Your task to perform on an android device: turn off data saver in the chrome app Image 0: 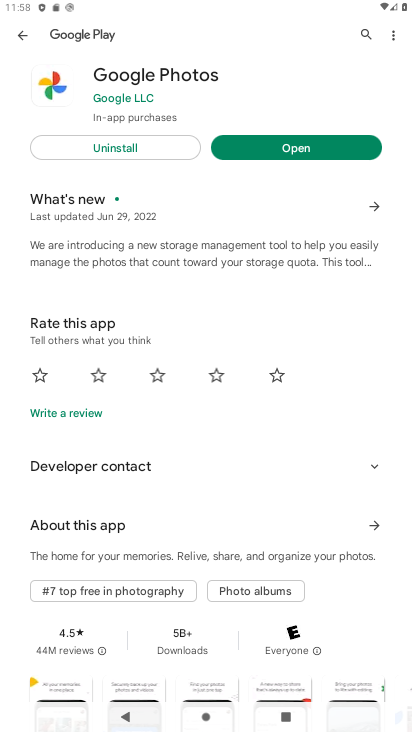
Step 0: press home button
Your task to perform on an android device: turn off data saver in the chrome app Image 1: 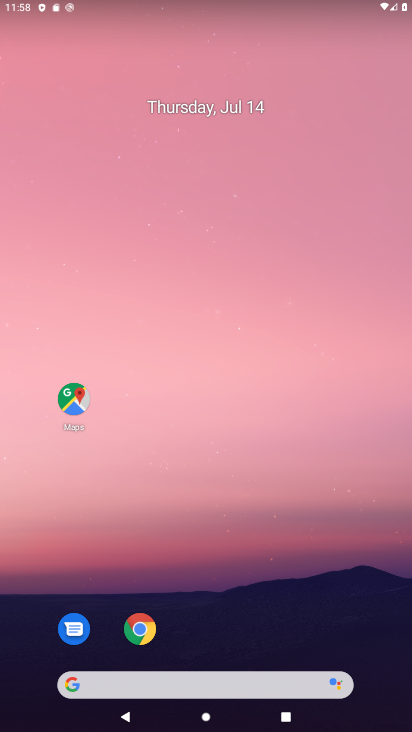
Step 1: drag from (246, 644) to (205, 84)
Your task to perform on an android device: turn off data saver in the chrome app Image 2: 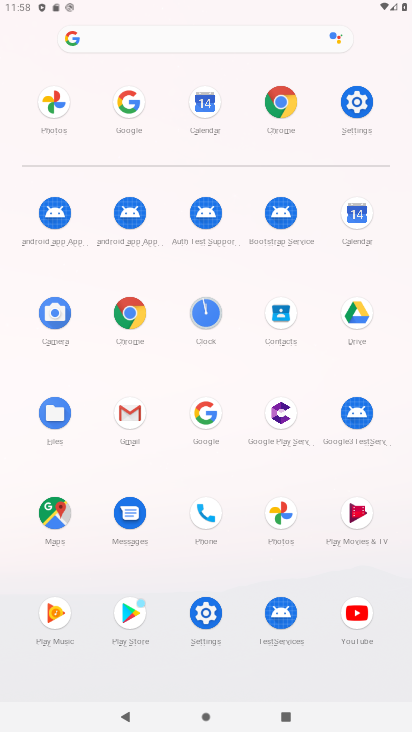
Step 2: click (279, 106)
Your task to perform on an android device: turn off data saver in the chrome app Image 3: 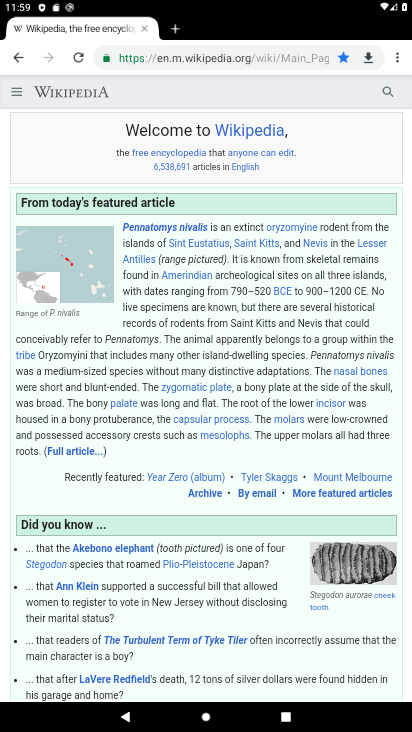
Step 3: drag from (395, 54) to (299, 413)
Your task to perform on an android device: turn off data saver in the chrome app Image 4: 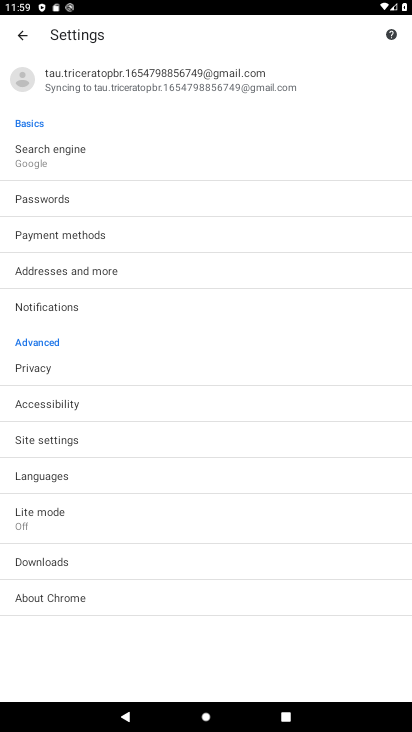
Step 4: click (68, 511)
Your task to perform on an android device: turn off data saver in the chrome app Image 5: 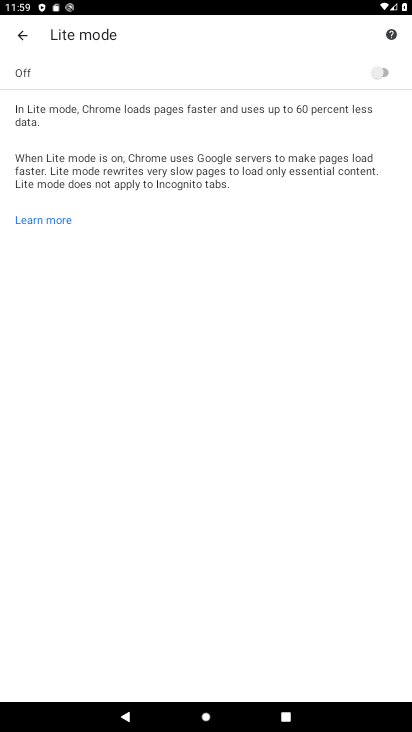
Step 5: task complete